Your task to perform on an android device: What's the weather? Image 0: 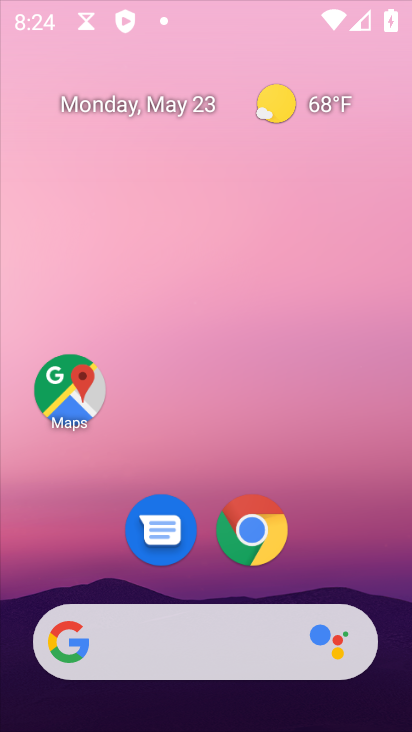
Step 0: click (255, 536)
Your task to perform on an android device: What's the weather? Image 1: 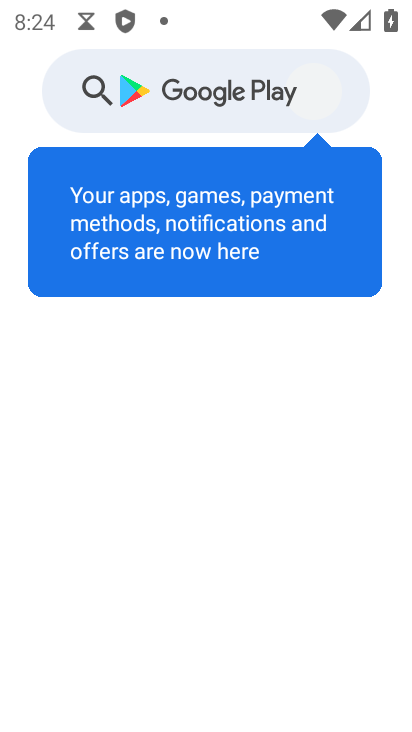
Step 1: press home button
Your task to perform on an android device: What's the weather? Image 2: 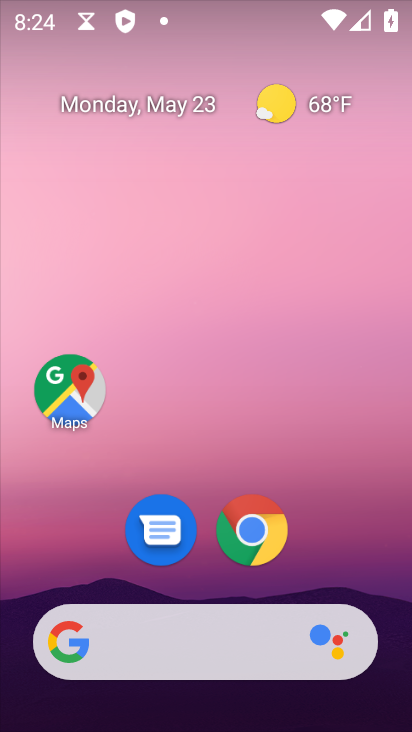
Step 2: click (314, 125)
Your task to perform on an android device: What's the weather? Image 3: 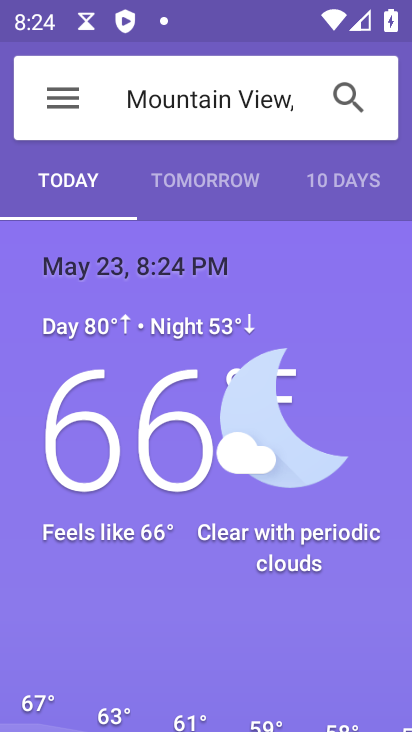
Step 3: task complete